Your task to perform on an android device: turn off translation in the chrome app Image 0: 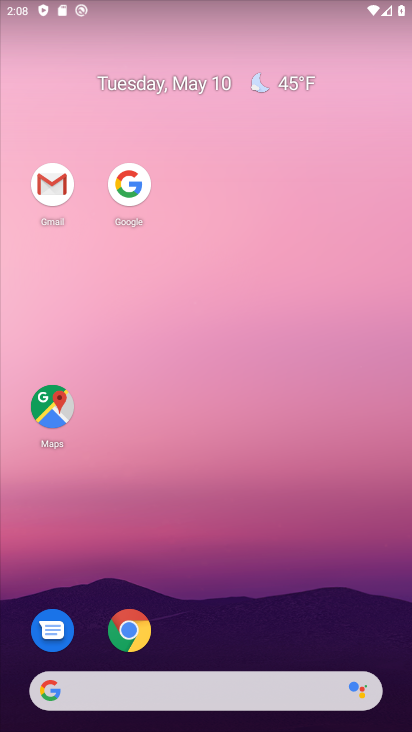
Step 0: click (134, 632)
Your task to perform on an android device: turn off translation in the chrome app Image 1: 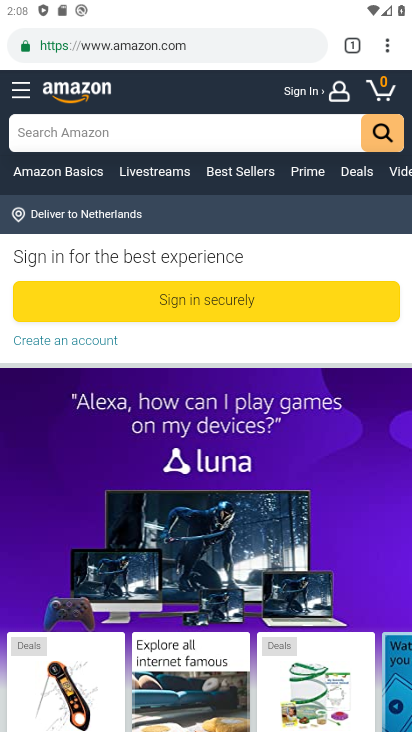
Step 1: click (396, 52)
Your task to perform on an android device: turn off translation in the chrome app Image 2: 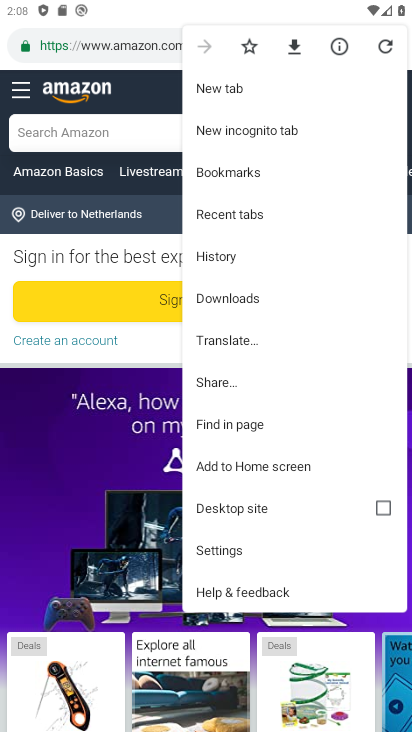
Step 2: click (244, 547)
Your task to perform on an android device: turn off translation in the chrome app Image 3: 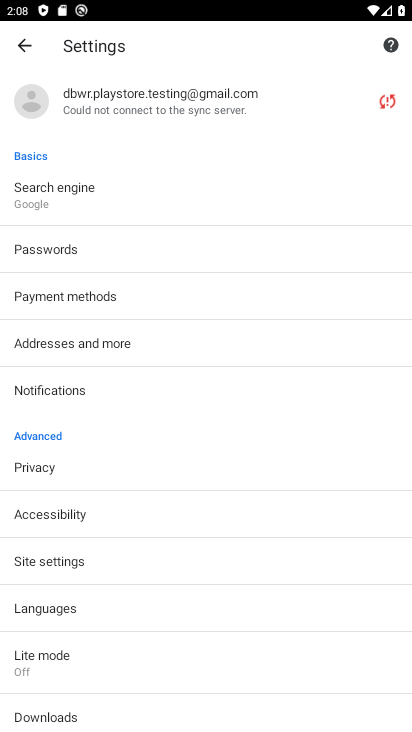
Step 3: click (96, 618)
Your task to perform on an android device: turn off translation in the chrome app Image 4: 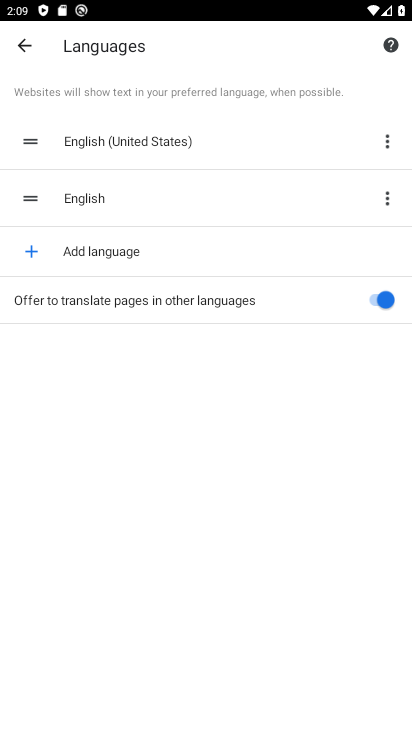
Step 4: click (390, 304)
Your task to perform on an android device: turn off translation in the chrome app Image 5: 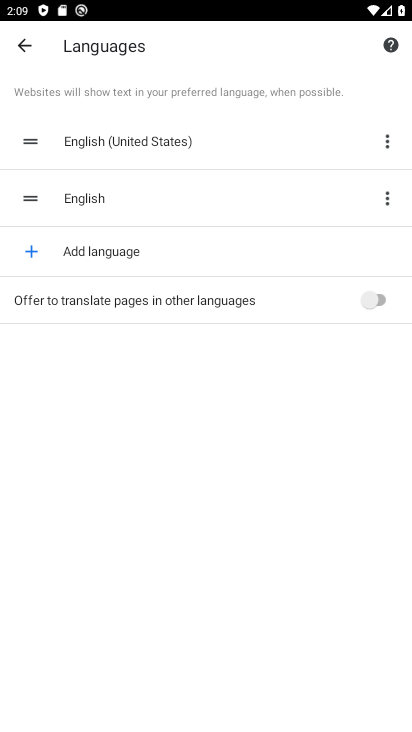
Step 5: task complete